Your task to perform on an android device: Go to Reddit.com Image 0: 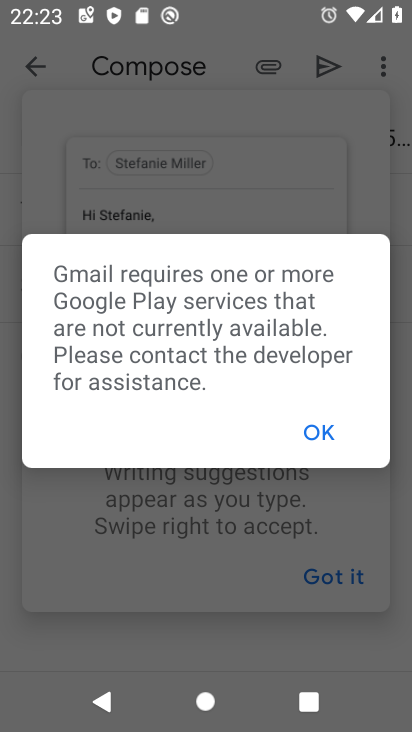
Step 0: press home button
Your task to perform on an android device: Go to Reddit.com Image 1: 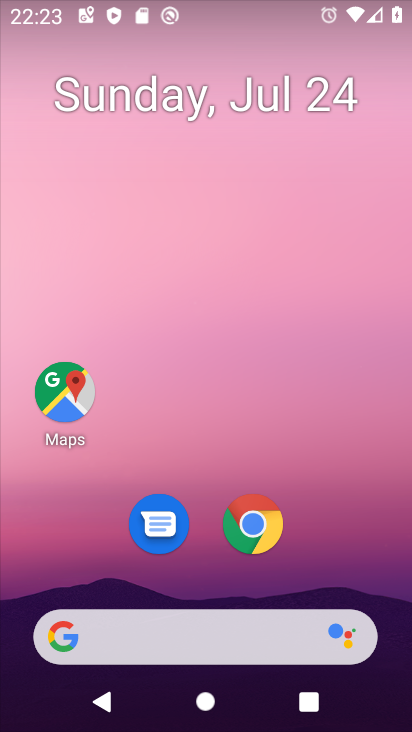
Step 1: click (248, 519)
Your task to perform on an android device: Go to Reddit.com Image 2: 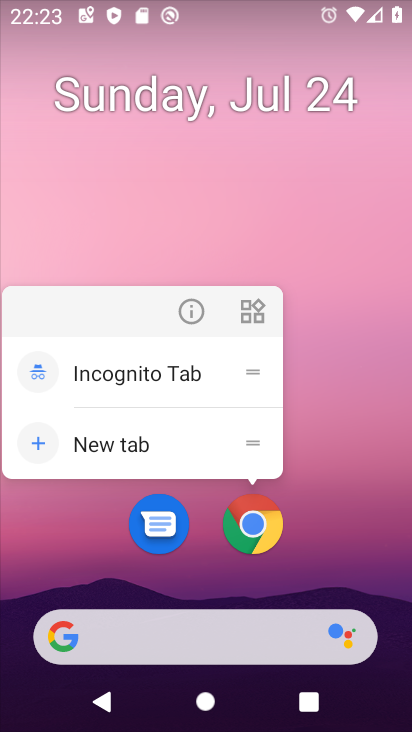
Step 2: click (256, 533)
Your task to perform on an android device: Go to Reddit.com Image 3: 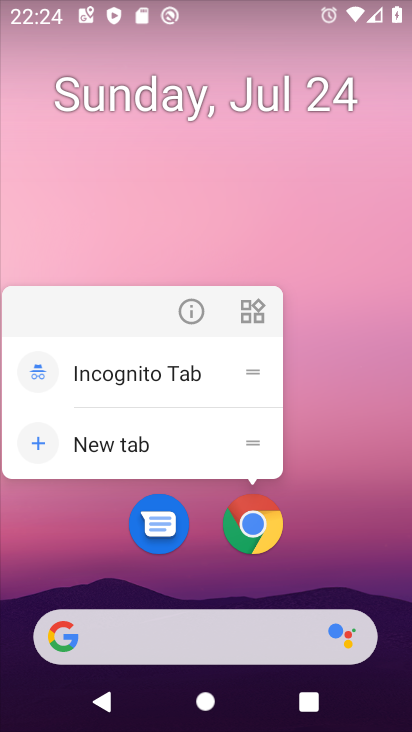
Step 3: click (258, 525)
Your task to perform on an android device: Go to Reddit.com Image 4: 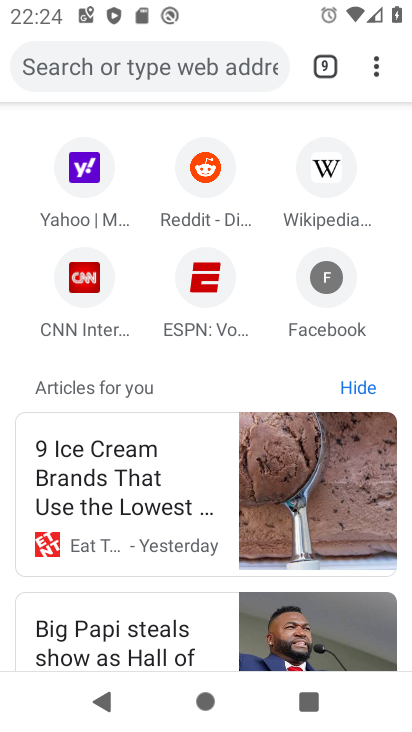
Step 4: click (197, 170)
Your task to perform on an android device: Go to Reddit.com Image 5: 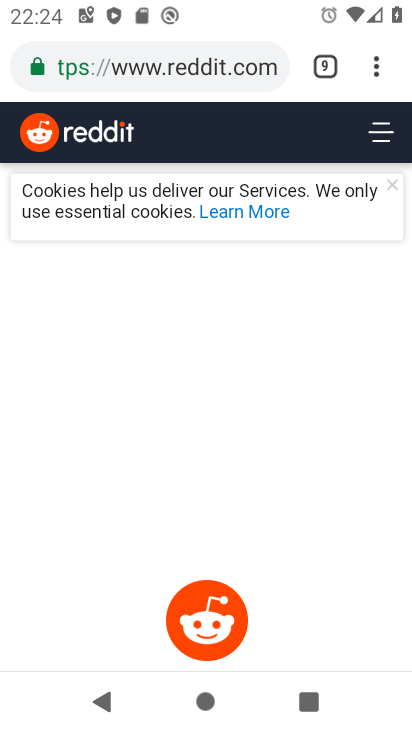
Step 5: task complete